Your task to perform on an android device: View the shopping cart on costco.com. Image 0: 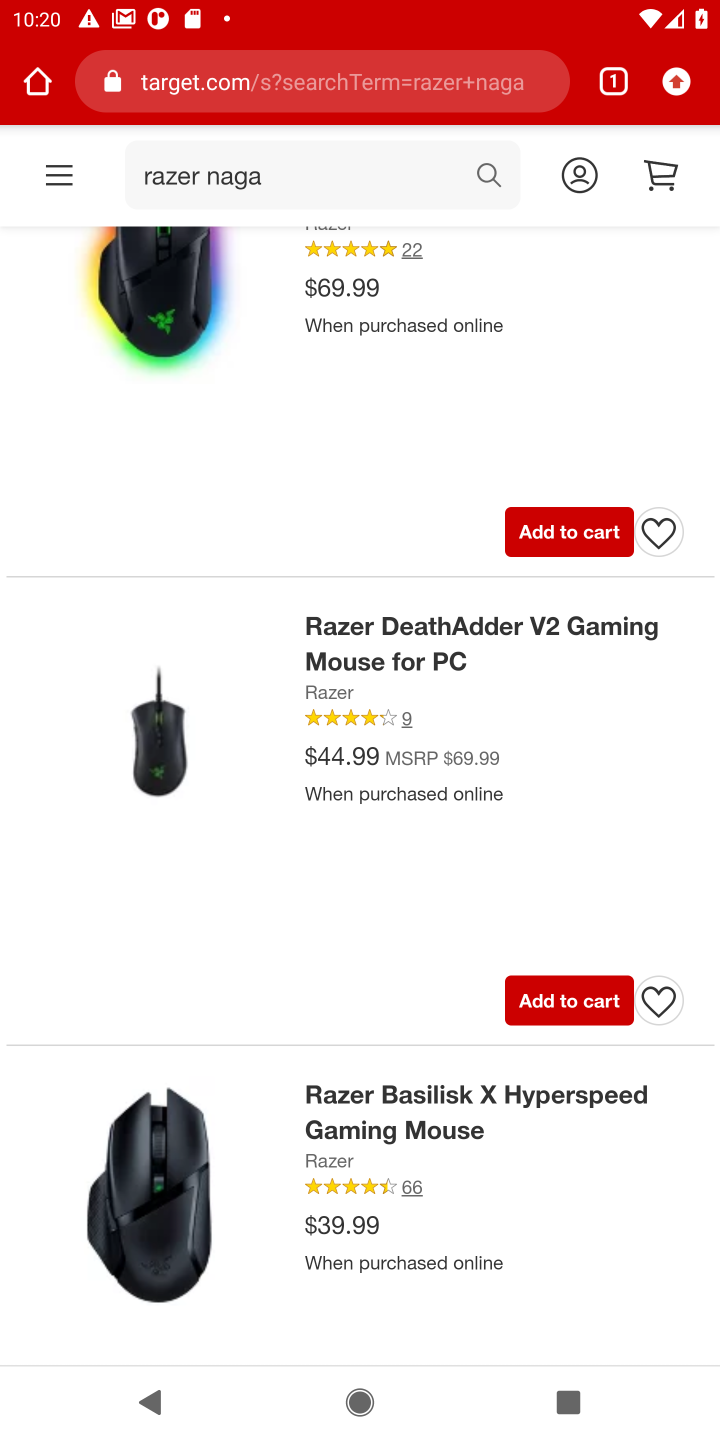
Step 0: click (311, 81)
Your task to perform on an android device: View the shopping cart on costco.com. Image 1: 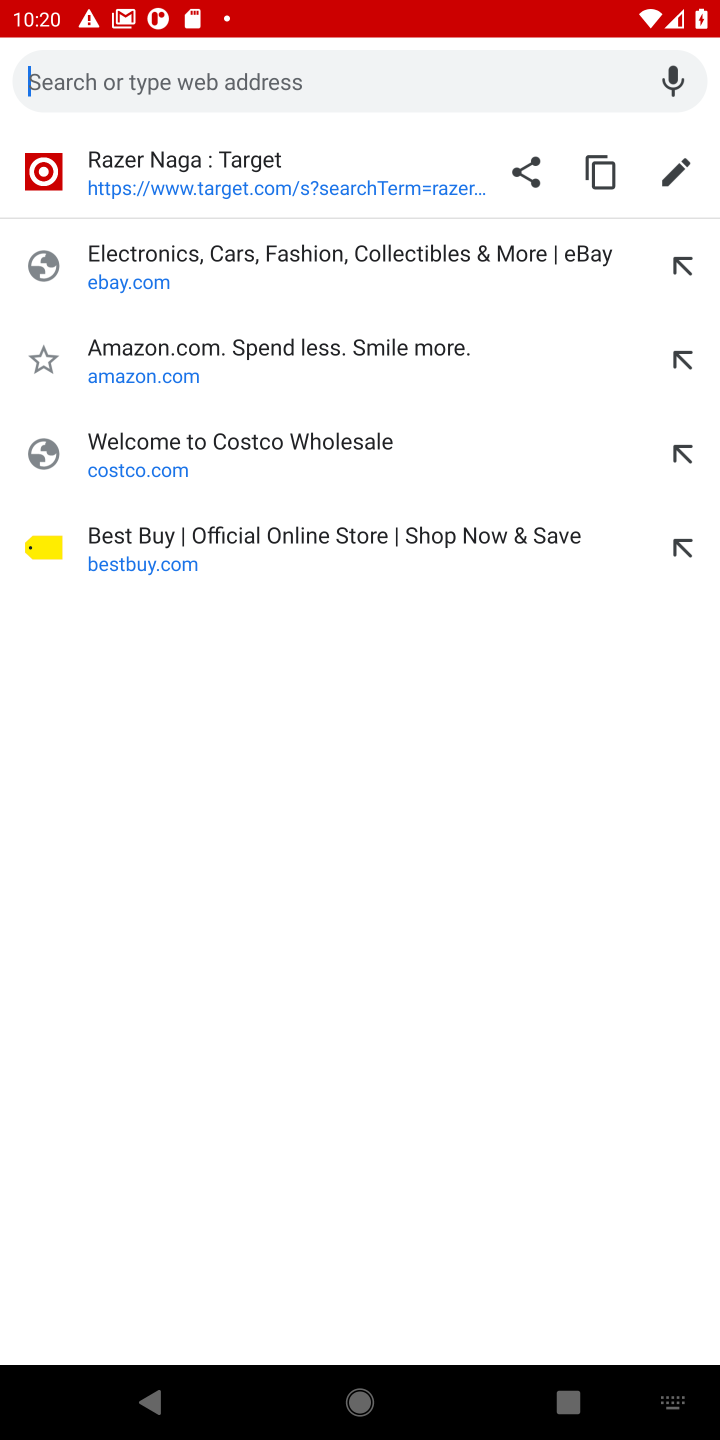
Step 1: click (313, 443)
Your task to perform on an android device: View the shopping cart on costco.com. Image 2: 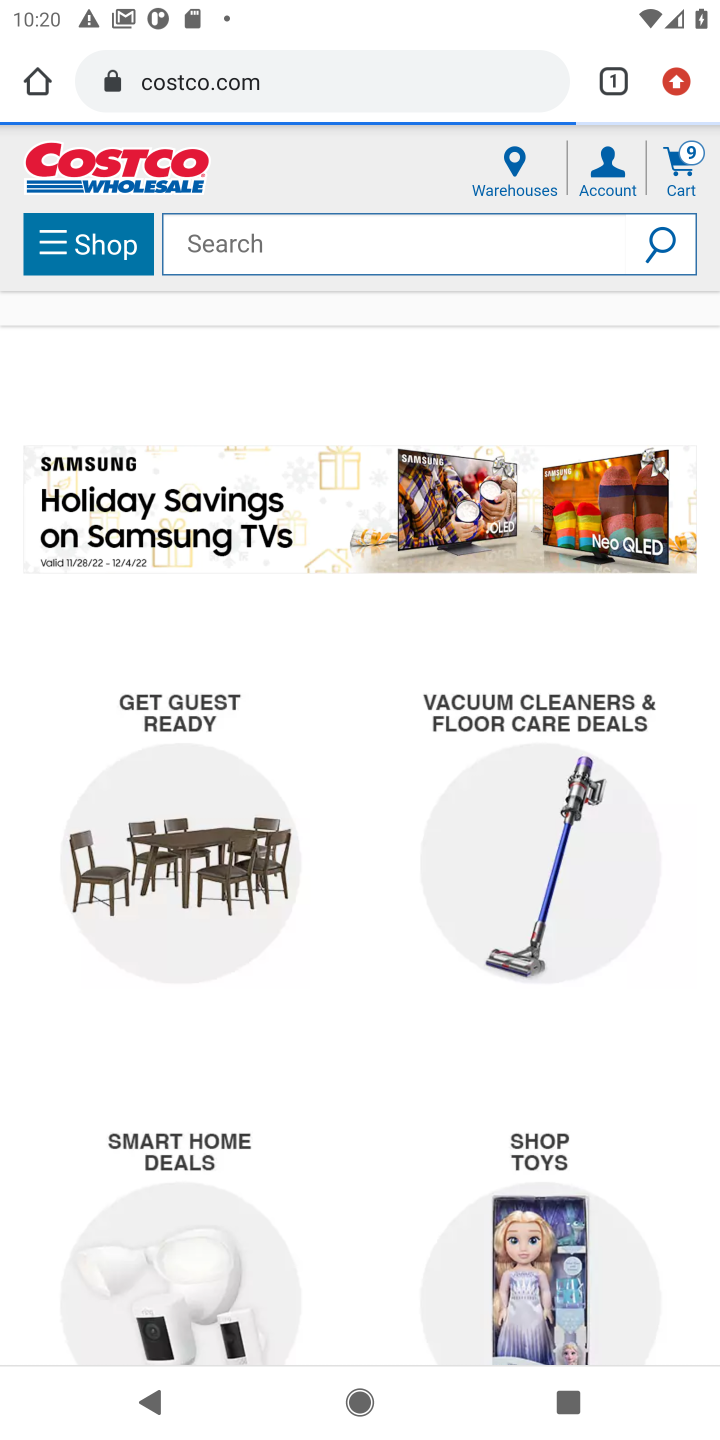
Step 2: click (677, 174)
Your task to perform on an android device: View the shopping cart on costco.com. Image 3: 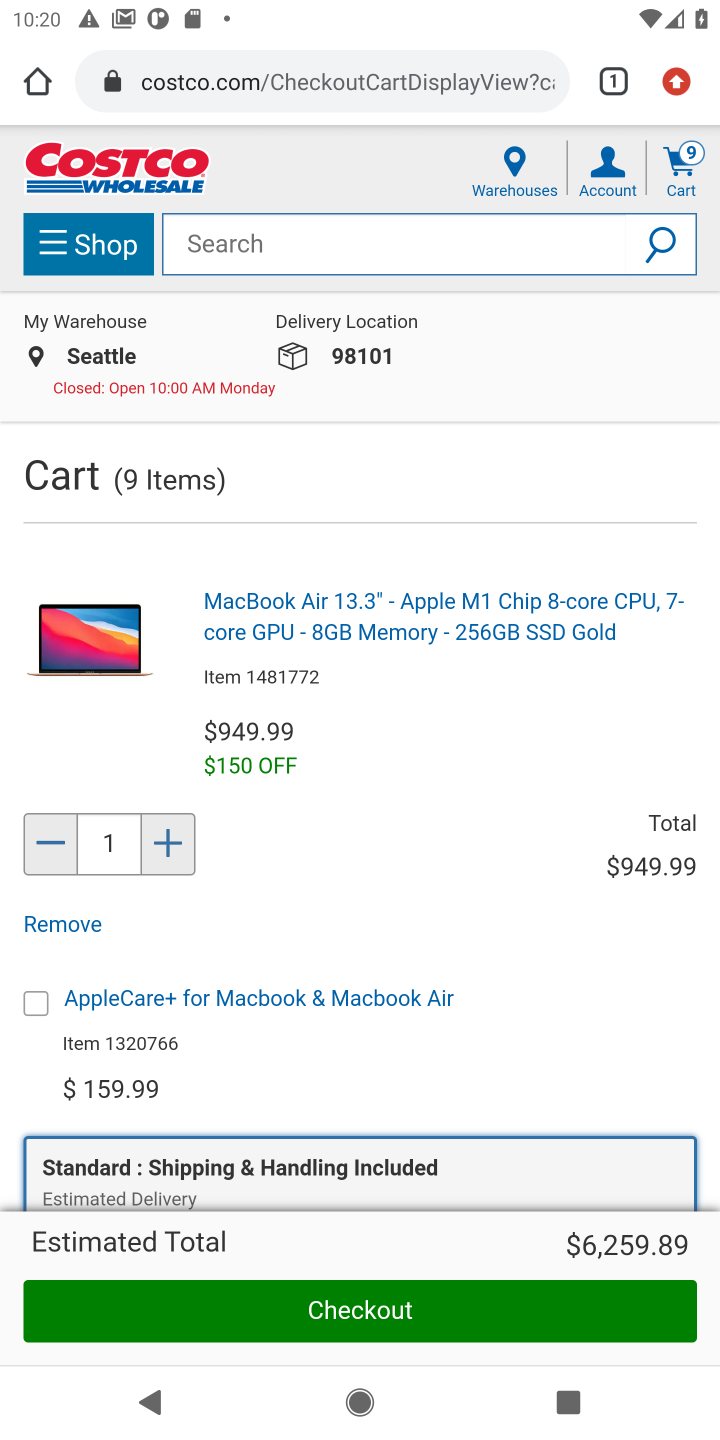
Step 3: task complete